Your task to perform on an android device: Open Reddit.com Image 0: 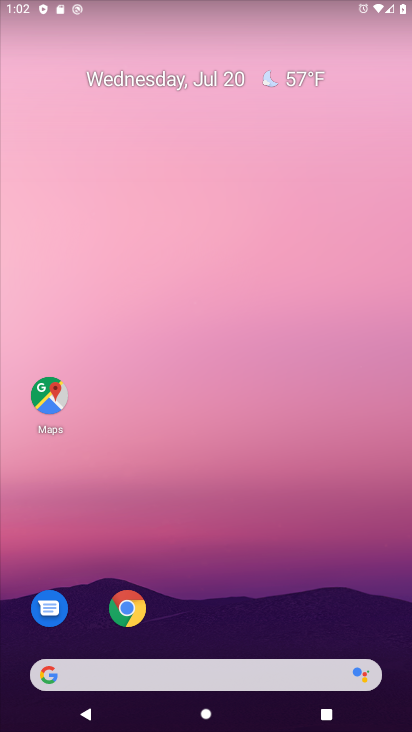
Step 0: click (255, 667)
Your task to perform on an android device: Open Reddit.com Image 1: 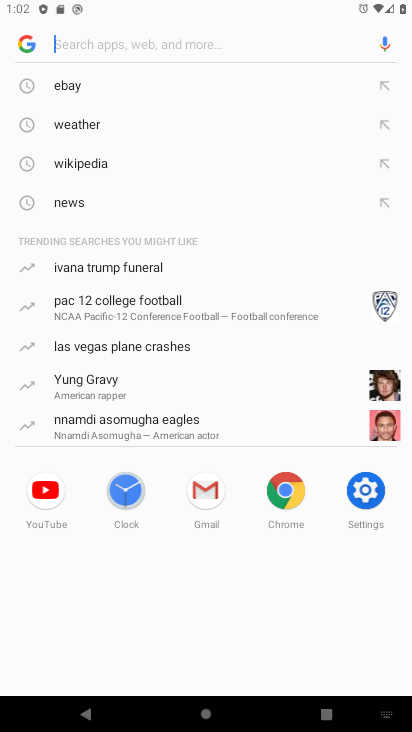
Step 1: type "reddit.com"
Your task to perform on an android device: Open Reddit.com Image 2: 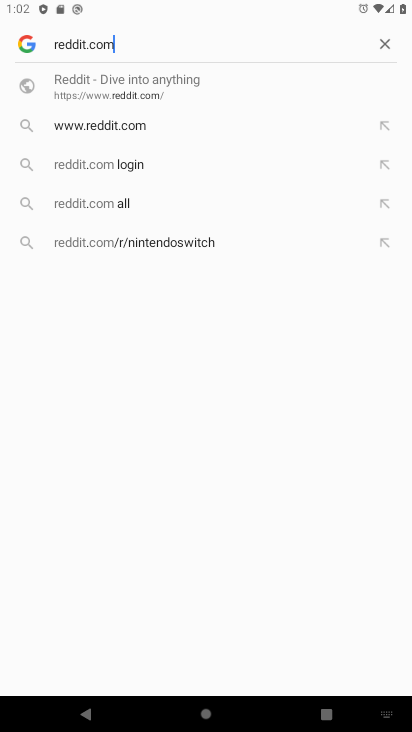
Step 2: click (148, 80)
Your task to perform on an android device: Open Reddit.com Image 3: 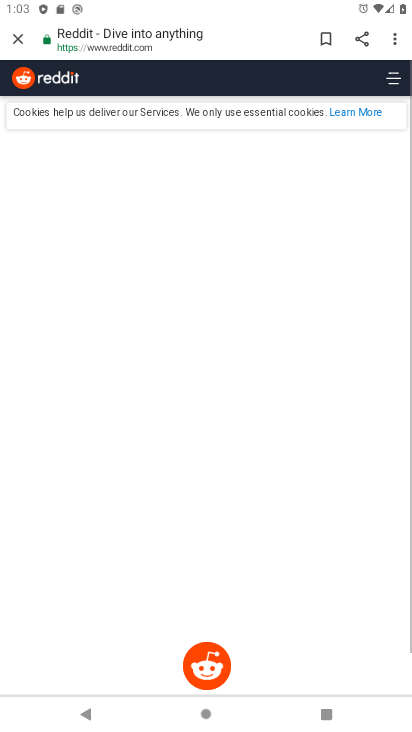
Step 3: task complete